Your task to perform on an android device: open a bookmark in the chrome app Image 0: 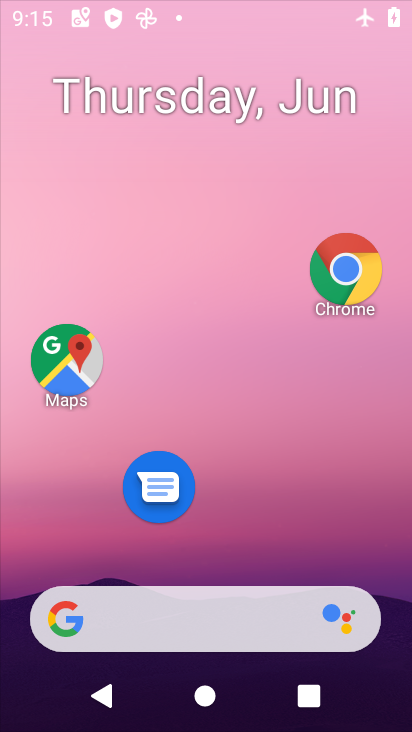
Step 0: click (181, 24)
Your task to perform on an android device: open a bookmark in the chrome app Image 1: 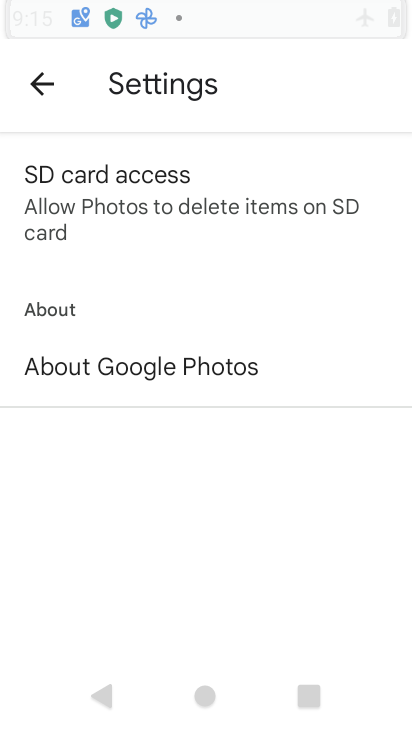
Step 1: drag from (204, 440) to (208, 86)
Your task to perform on an android device: open a bookmark in the chrome app Image 2: 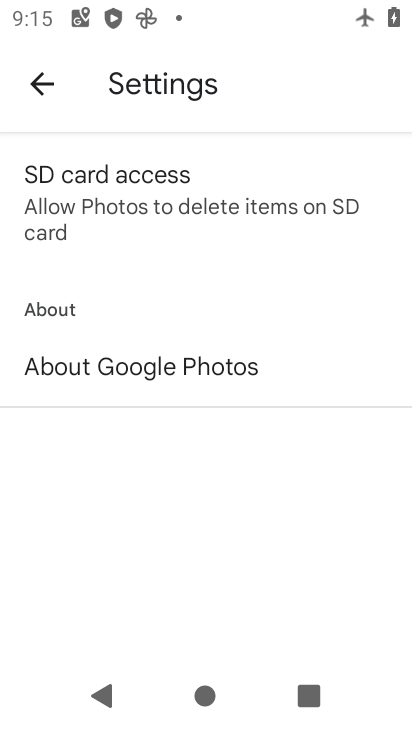
Step 2: press home button
Your task to perform on an android device: open a bookmark in the chrome app Image 3: 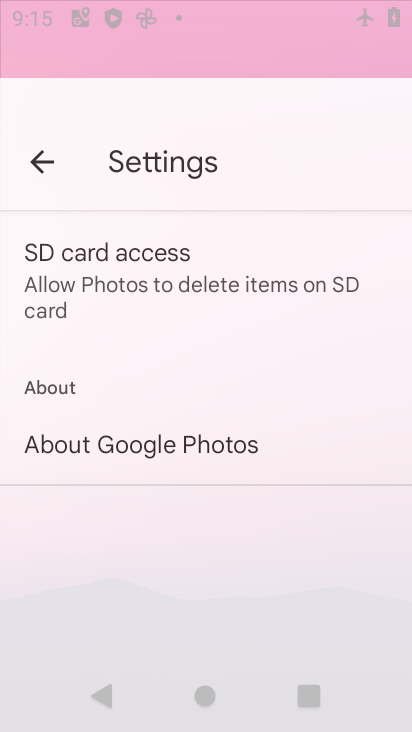
Step 3: drag from (245, 566) to (286, 16)
Your task to perform on an android device: open a bookmark in the chrome app Image 4: 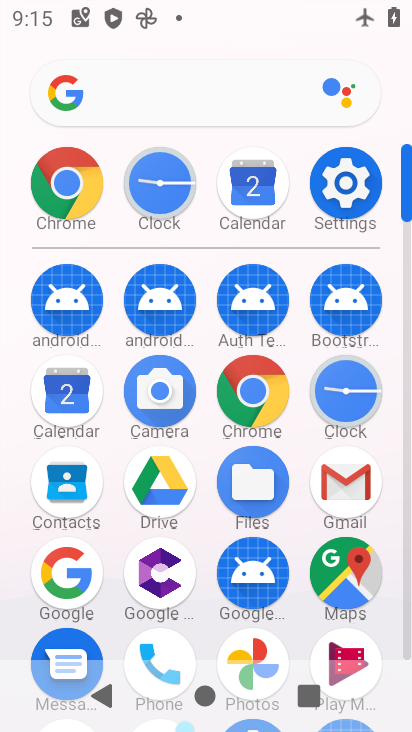
Step 4: click (247, 376)
Your task to perform on an android device: open a bookmark in the chrome app Image 5: 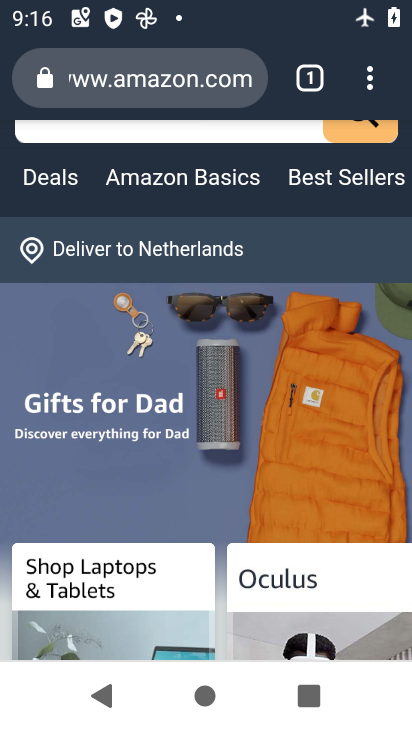
Step 5: task complete